Your task to perform on an android device: empty trash in the gmail app Image 0: 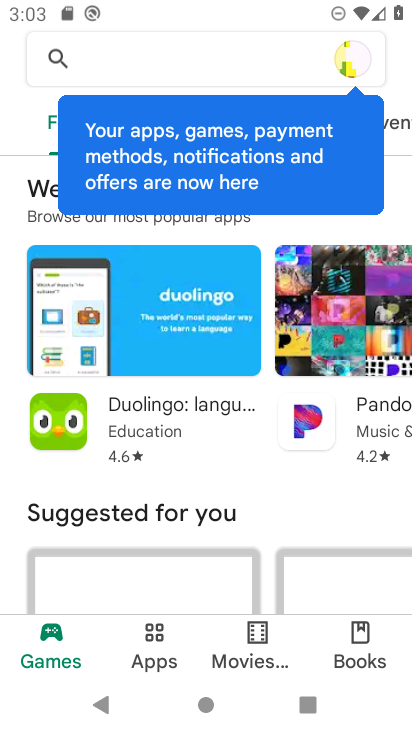
Step 0: press home button
Your task to perform on an android device: empty trash in the gmail app Image 1: 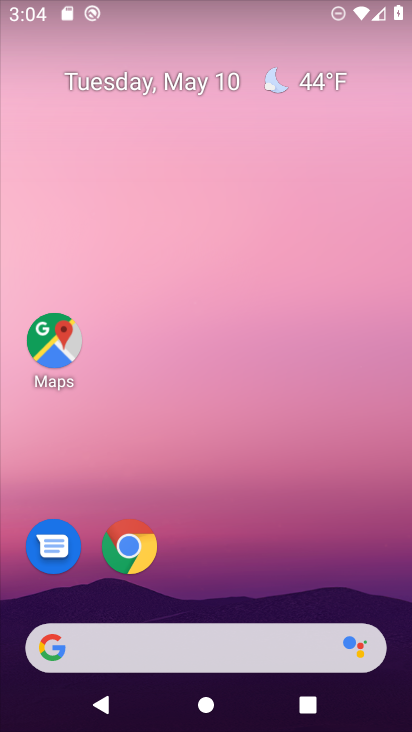
Step 1: drag from (250, 731) to (309, 143)
Your task to perform on an android device: empty trash in the gmail app Image 2: 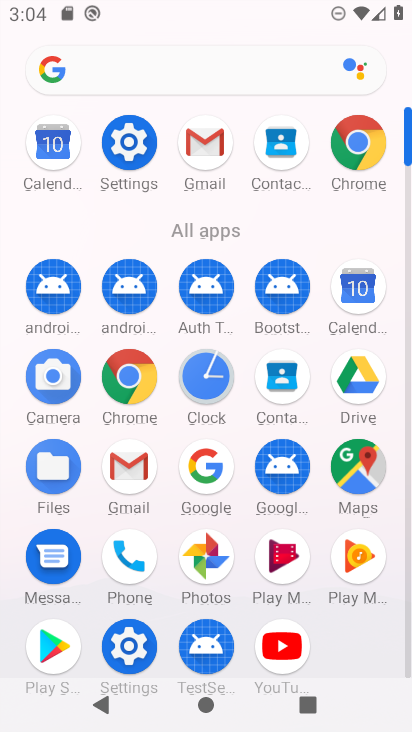
Step 2: click (198, 141)
Your task to perform on an android device: empty trash in the gmail app Image 3: 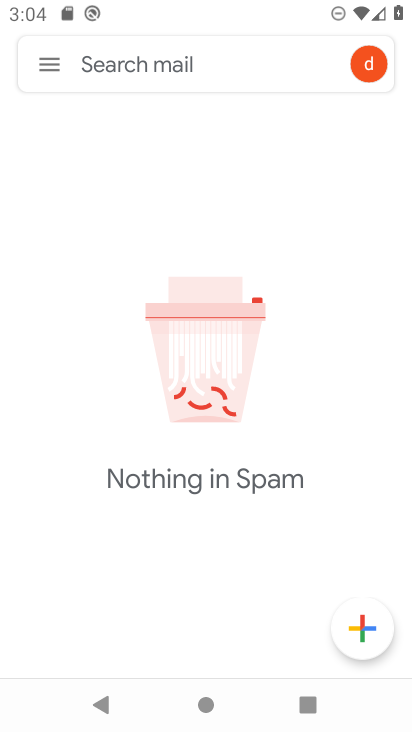
Step 3: click (44, 60)
Your task to perform on an android device: empty trash in the gmail app Image 4: 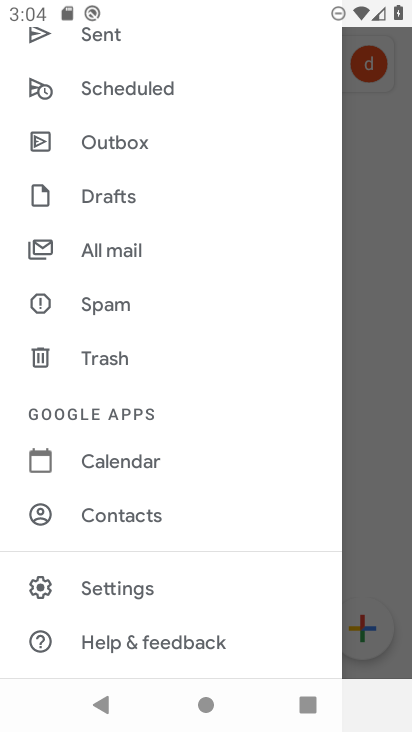
Step 4: click (103, 354)
Your task to perform on an android device: empty trash in the gmail app Image 5: 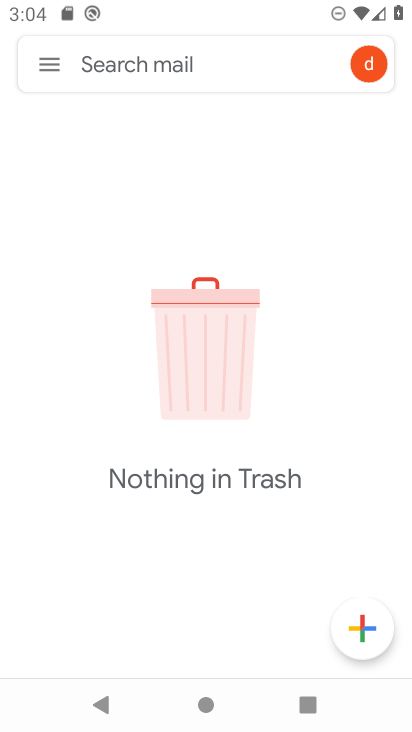
Step 5: task complete